Your task to perform on an android device: Do I have any events today? Image 0: 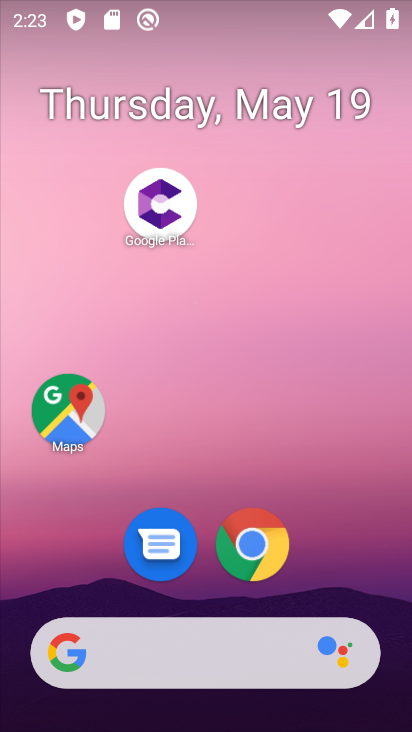
Step 0: drag from (283, 686) to (235, 147)
Your task to perform on an android device: Do I have any events today? Image 1: 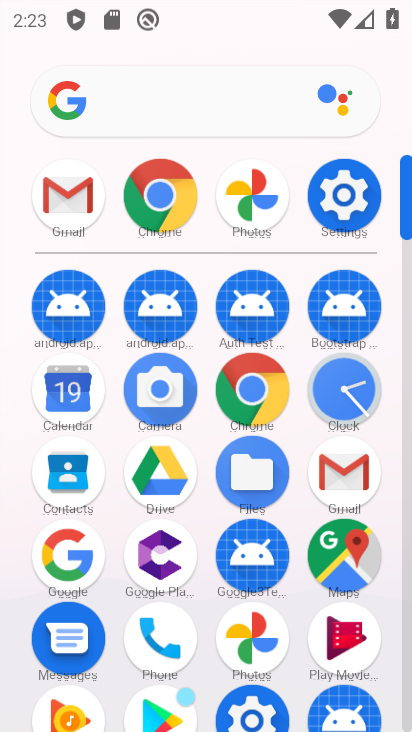
Step 1: click (79, 392)
Your task to perform on an android device: Do I have any events today? Image 2: 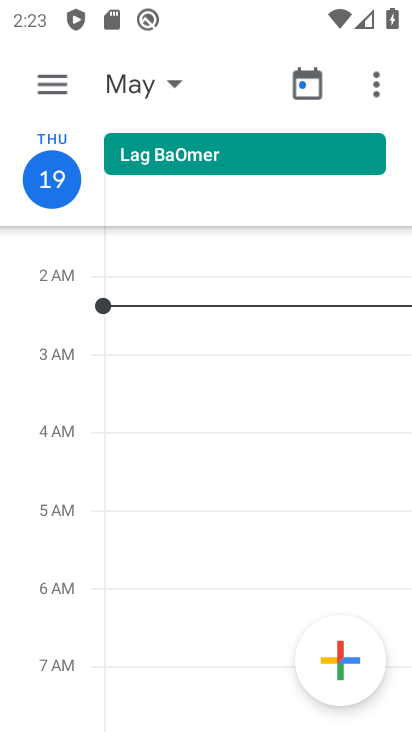
Step 2: click (54, 187)
Your task to perform on an android device: Do I have any events today? Image 3: 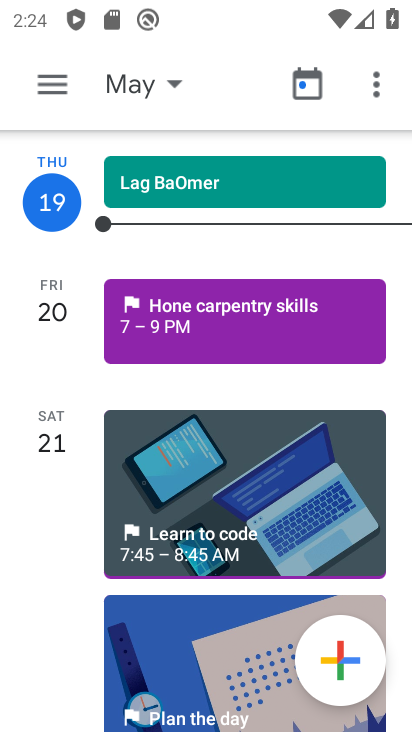
Step 3: task complete